Your task to perform on an android device: toggle wifi Image 0: 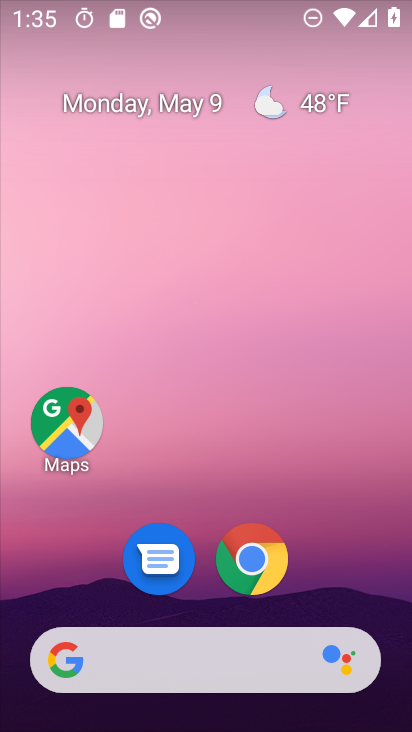
Step 0: drag from (219, 573) to (277, 174)
Your task to perform on an android device: toggle wifi Image 1: 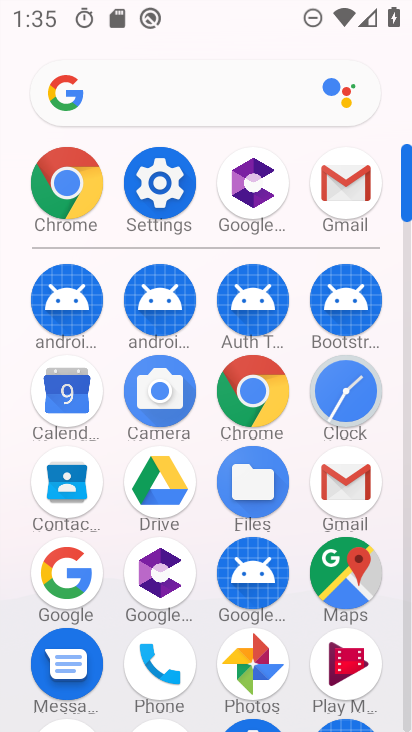
Step 1: click (156, 175)
Your task to perform on an android device: toggle wifi Image 2: 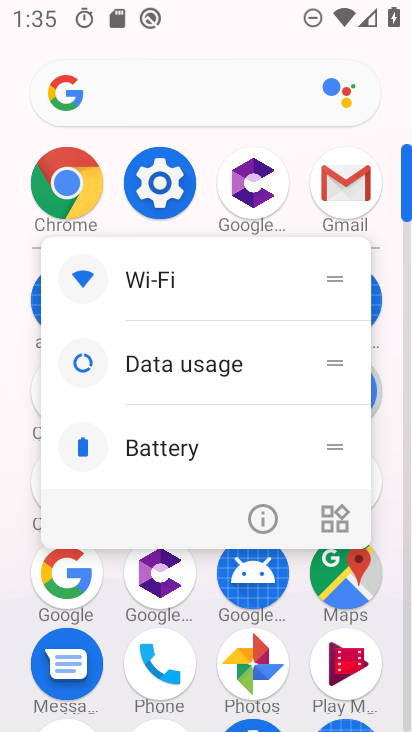
Step 2: click (261, 519)
Your task to perform on an android device: toggle wifi Image 3: 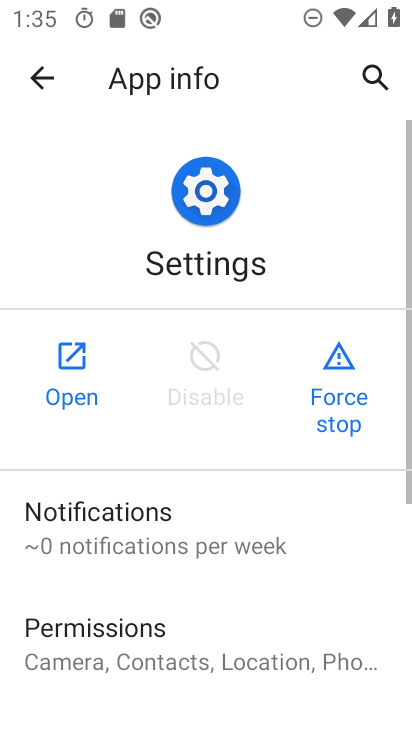
Step 3: click (72, 369)
Your task to perform on an android device: toggle wifi Image 4: 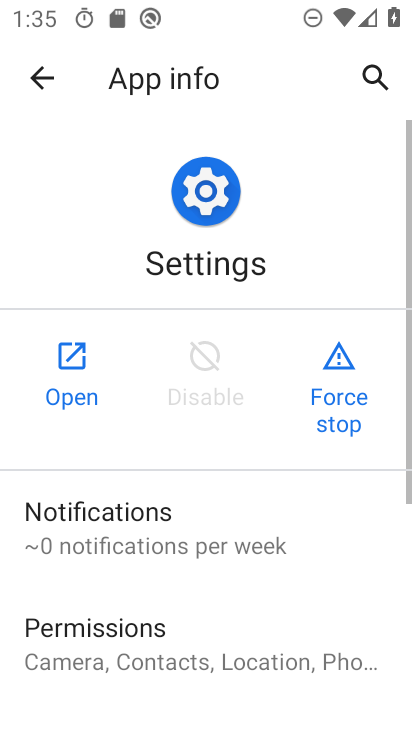
Step 4: click (72, 369)
Your task to perform on an android device: toggle wifi Image 5: 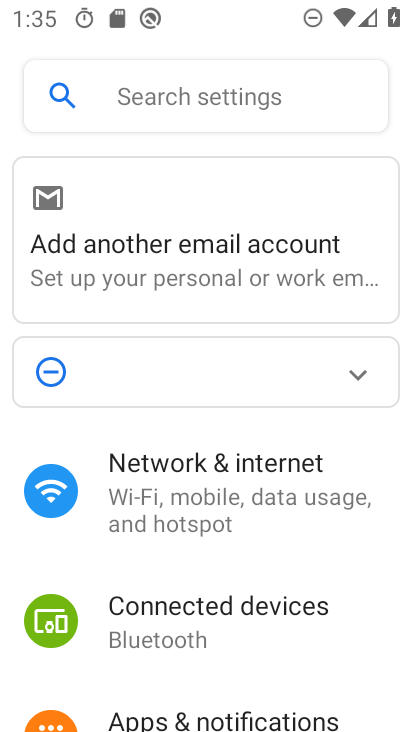
Step 5: click (207, 483)
Your task to perform on an android device: toggle wifi Image 6: 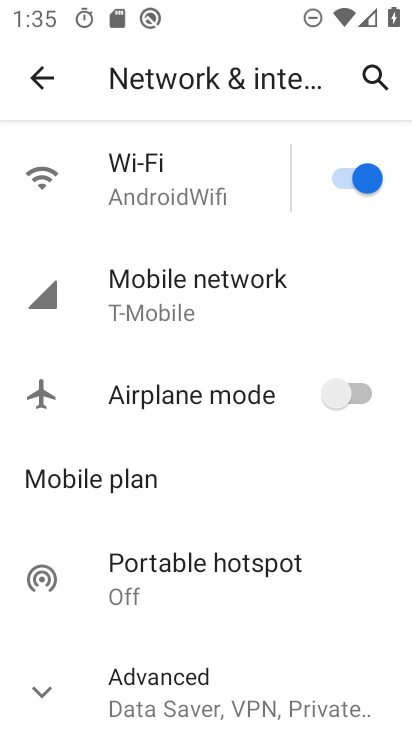
Step 6: click (214, 186)
Your task to perform on an android device: toggle wifi Image 7: 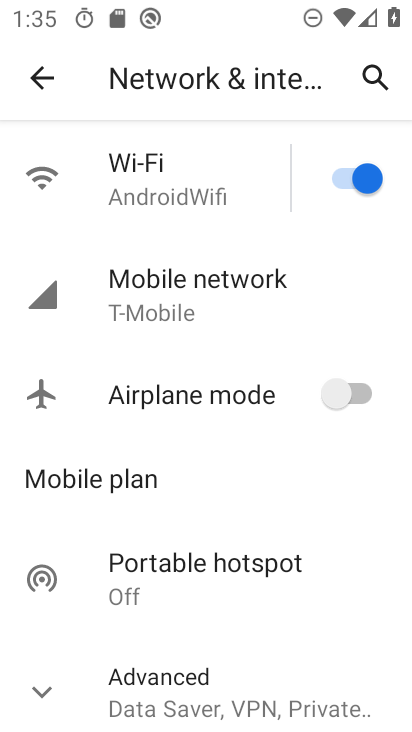
Step 7: click (214, 186)
Your task to perform on an android device: toggle wifi Image 8: 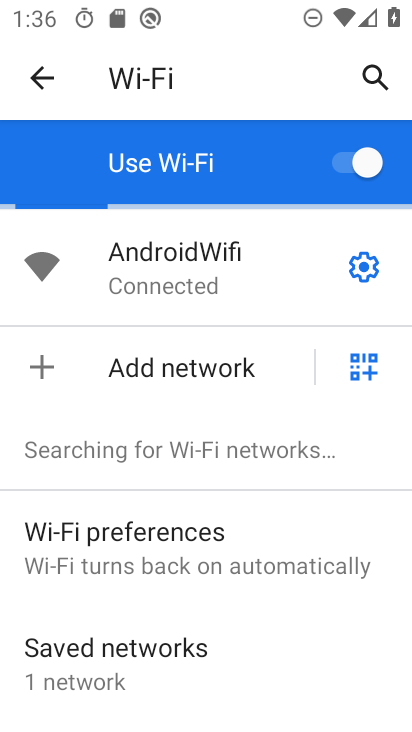
Step 8: task complete